Your task to perform on an android device: Open CNN.com Image 0: 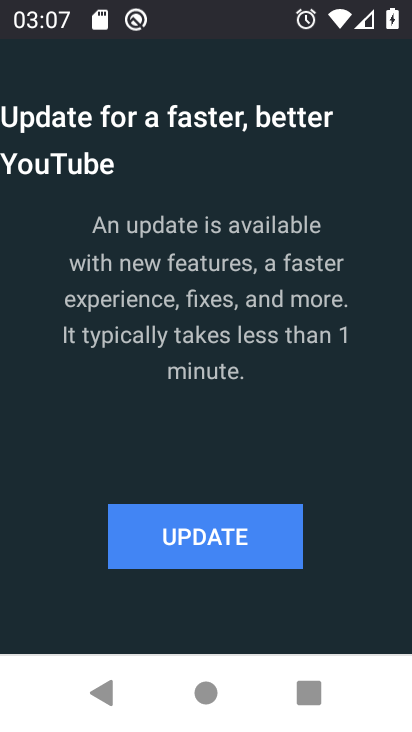
Step 0: press home button
Your task to perform on an android device: Open CNN.com Image 1: 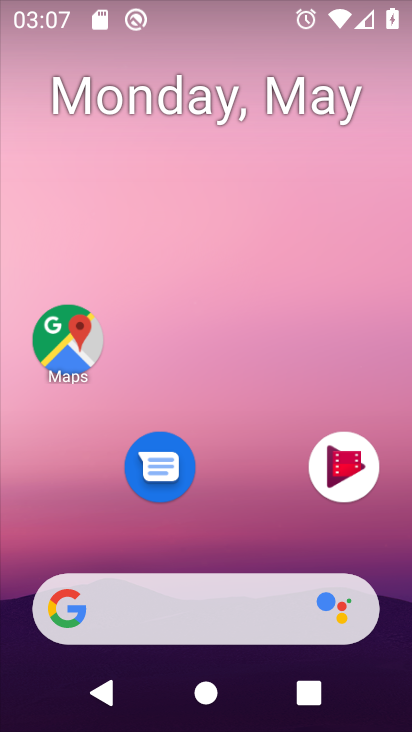
Step 1: drag from (241, 485) to (269, 176)
Your task to perform on an android device: Open CNN.com Image 2: 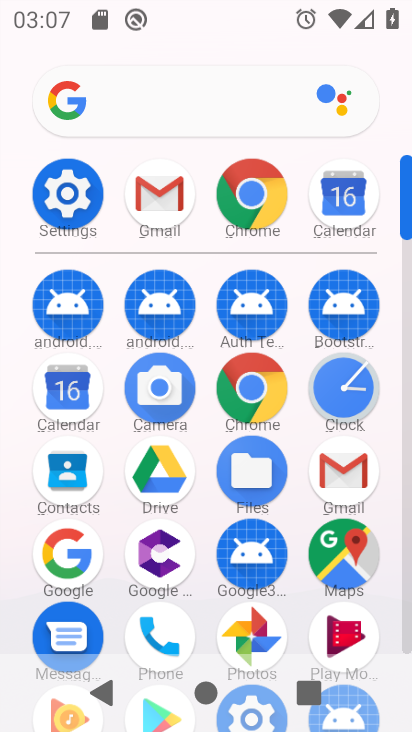
Step 2: click (252, 187)
Your task to perform on an android device: Open CNN.com Image 3: 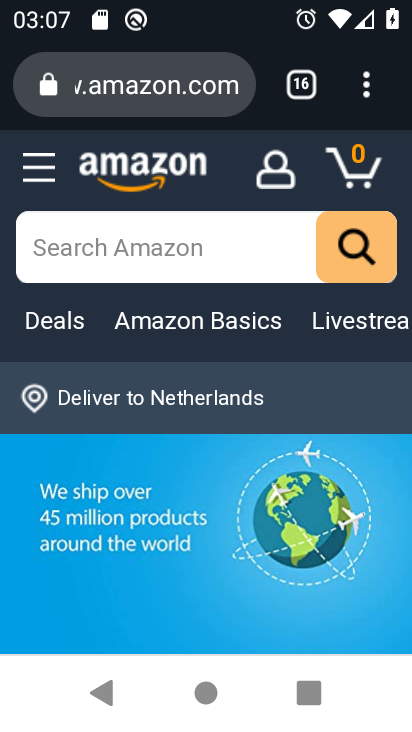
Step 3: click (356, 76)
Your task to perform on an android device: Open CNN.com Image 4: 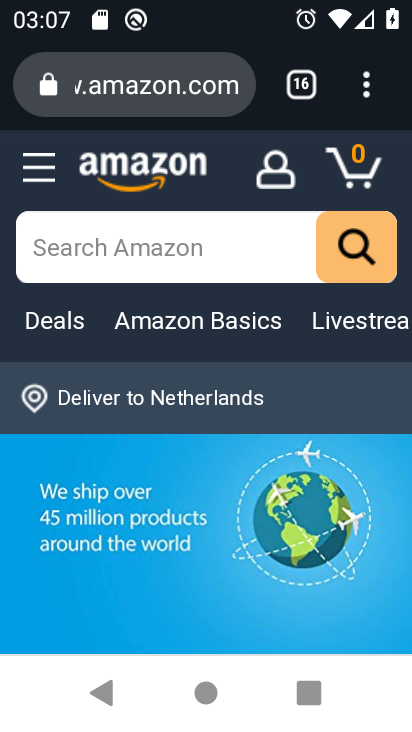
Step 4: click (286, 87)
Your task to perform on an android device: Open CNN.com Image 5: 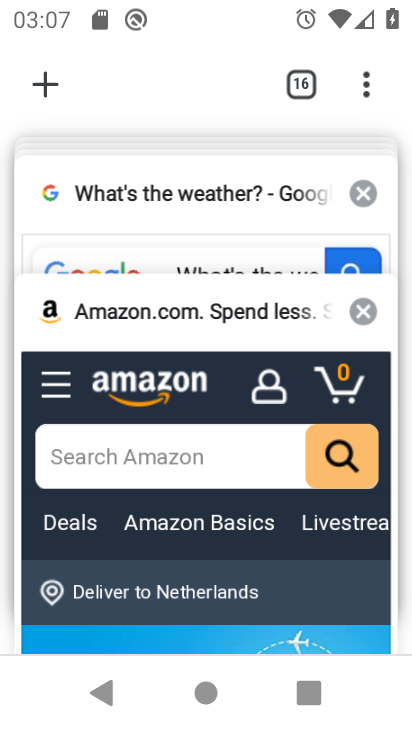
Step 5: drag from (225, 219) to (230, 487)
Your task to perform on an android device: Open CNN.com Image 6: 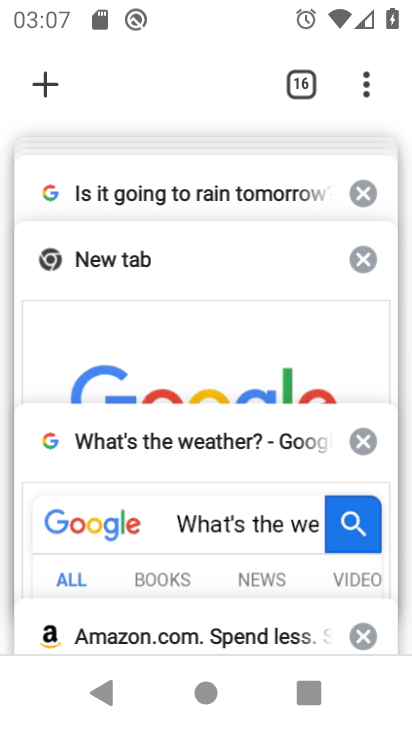
Step 6: drag from (210, 303) to (228, 554)
Your task to perform on an android device: Open CNN.com Image 7: 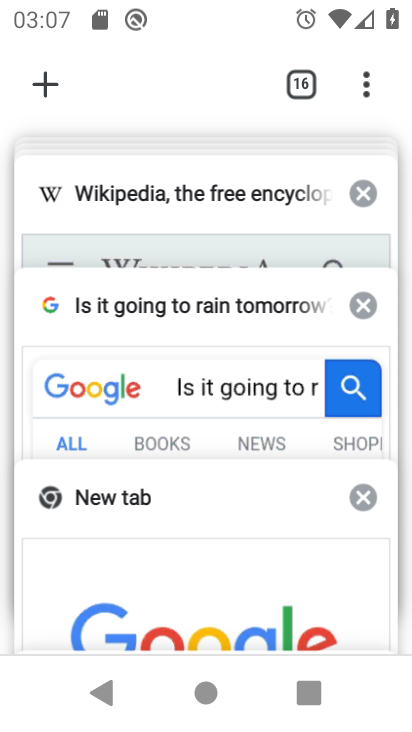
Step 7: drag from (171, 253) to (172, 535)
Your task to perform on an android device: Open CNN.com Image 8: 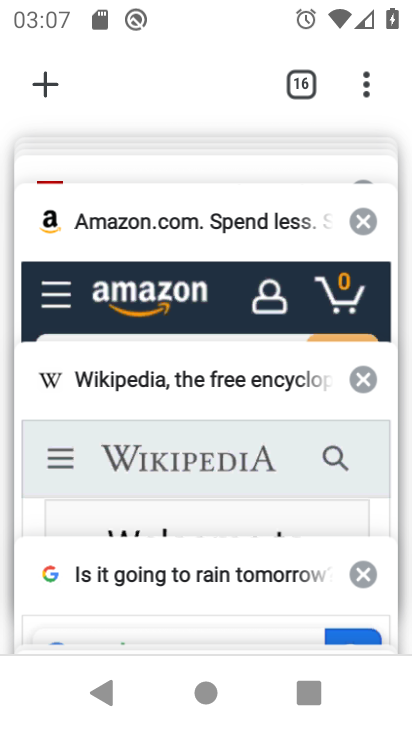
Step 8: drag from (206, 262) to (205, 570)
Your task to perform on an android device: Open CNN.com Image 9: 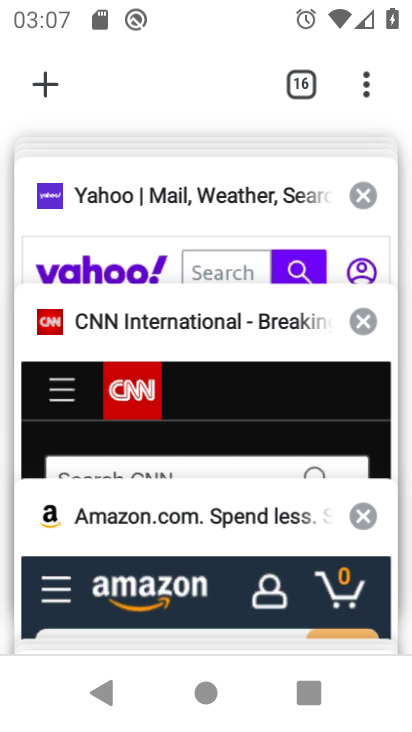
Step 9: click (180, 398)
Your task to perform on an android device: Open CNN.com Image 10: 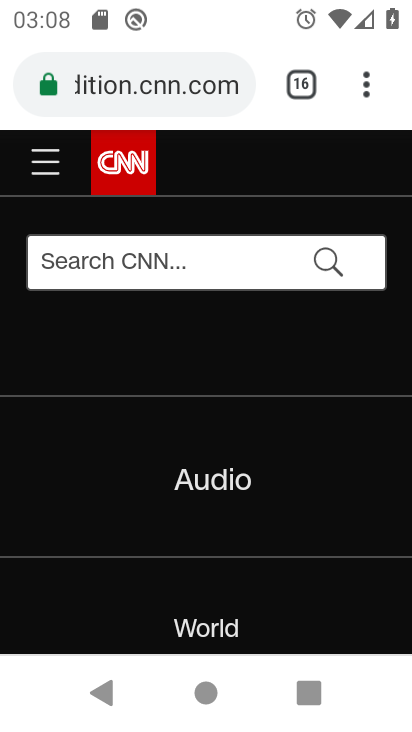
Step 10: task complete